Your task to perform on an android device: move an email to a new category in the gmail app Image 0: 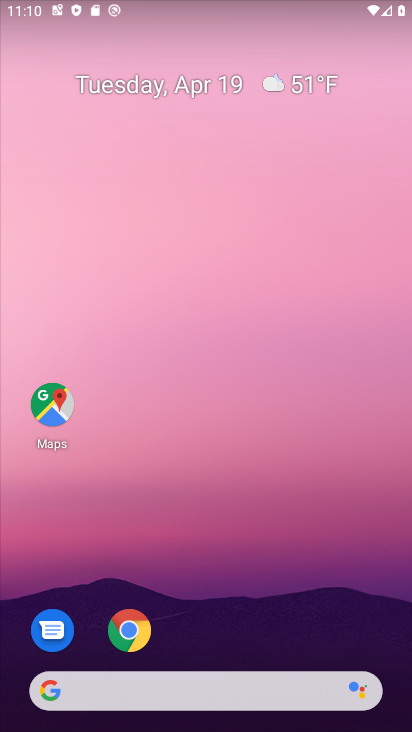
Step 0: drag from (345, 537) to (294, 78)
Your task to perform on an android device: move an email to a new category in the gmail app Image 1: 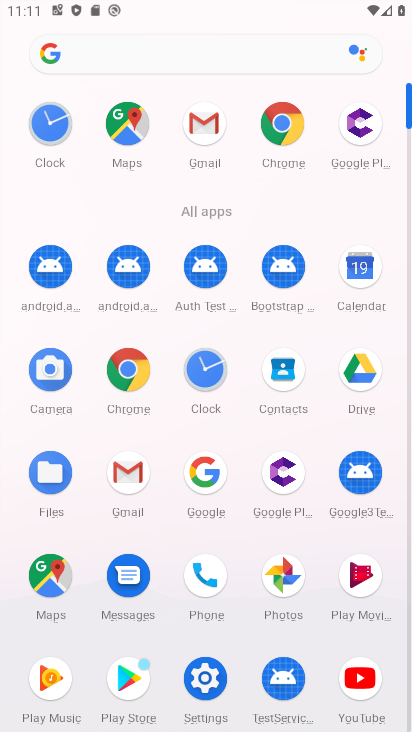
Step 1: click (192, 124)
Your task to perform on an android device: move an email to a new category in the gmail app Image 2: 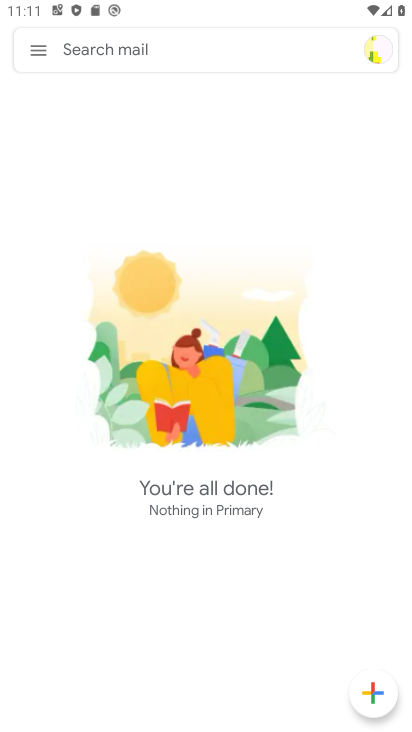
Step 2: click (37, 68)
Your task to perform on an android device: move an email to a new category in the gmail app Image 3: 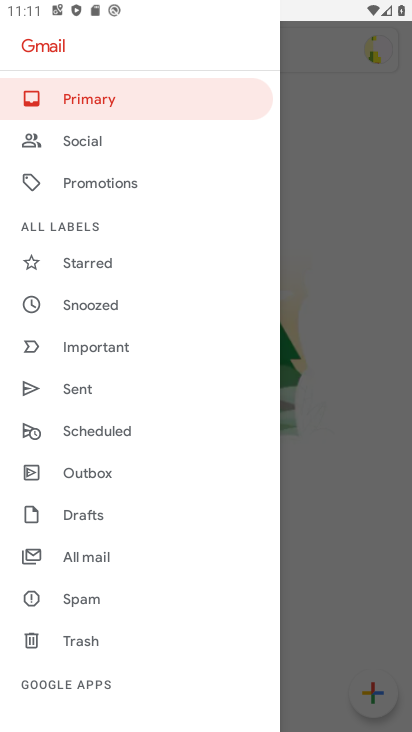
Step 3: click (159, 558)
Your task to perform on an android device: move an email to a new category in the gmail app Image 4: 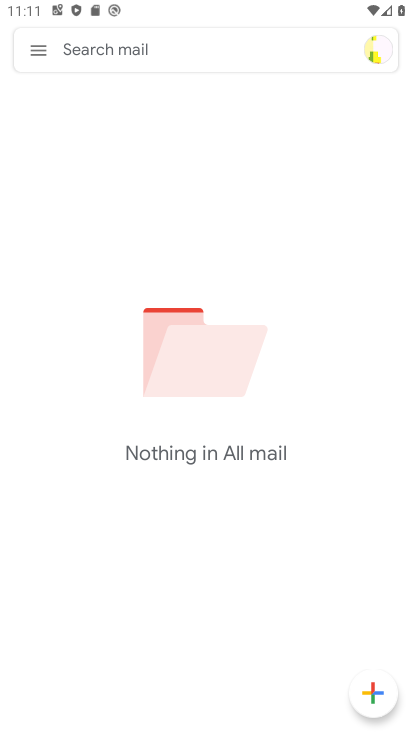
Step 4: task complete